Your task to perform on an android device: Go to location settings Image 0: 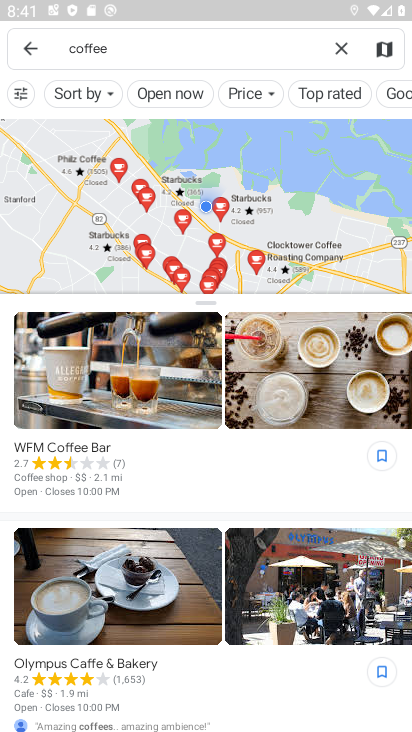
Step 0: press home button
Your task to perform on an android device: Go to location settings Image 1: 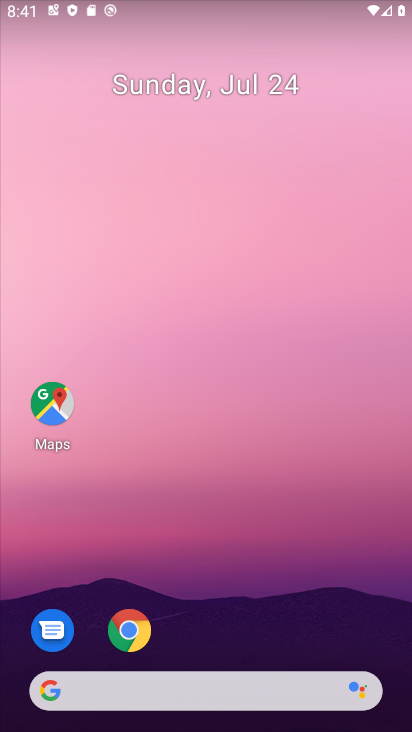
Step 1: drag from (212, 629) to (181, 160)
Your task to perform on an android device: Go to location settings Image 2: 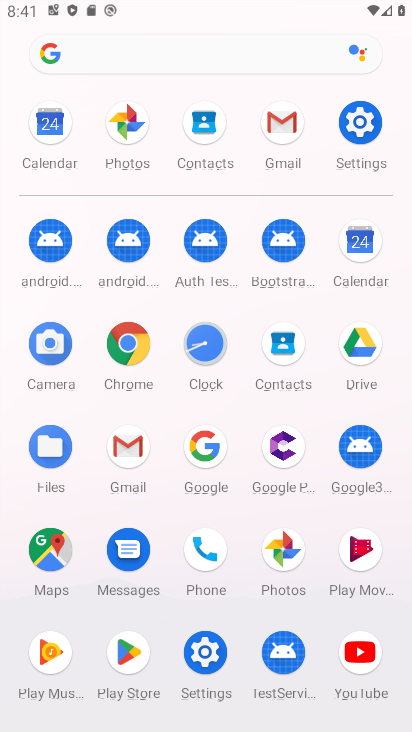
Step 2: click (373, 127)
Your task to perform on an android device: Go to location settings Image 3: 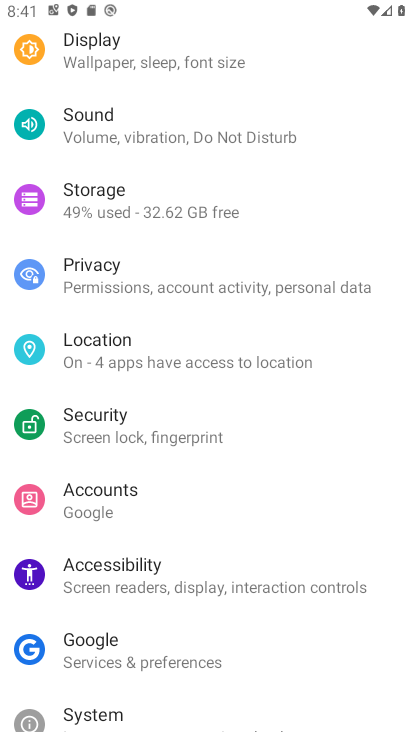
Step 3: drag from (182, 650) to (182, 209)
Your task to perform on an android device: Go to location settings Image 4: 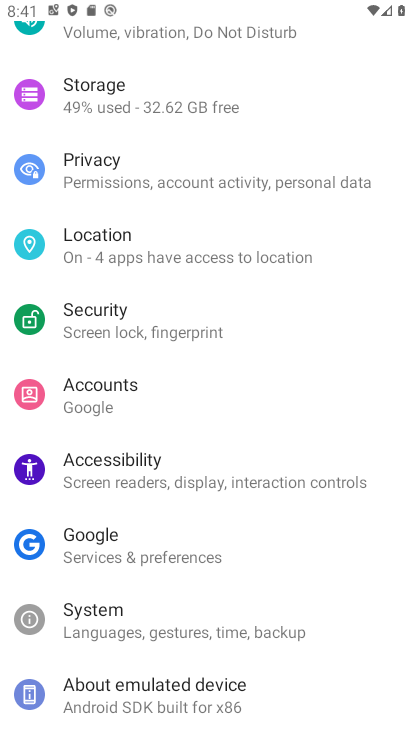
Step 4: click (154, 231)
Your task to perform on an android device: Go to location settings Image 5: 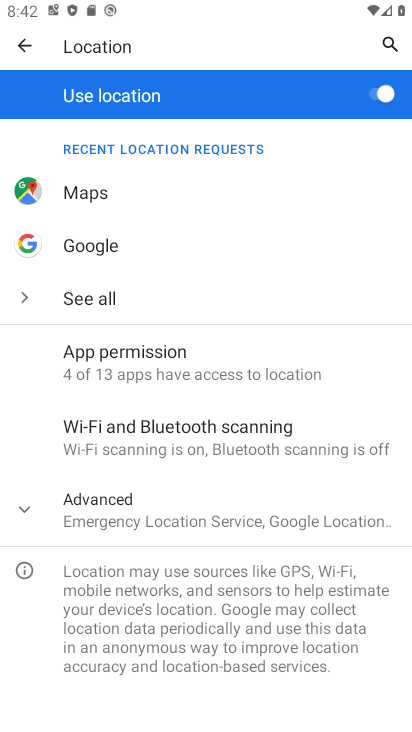
Step 5: task complete